Your task to perform on an android device: snooze an email in the gmail app Image 0: 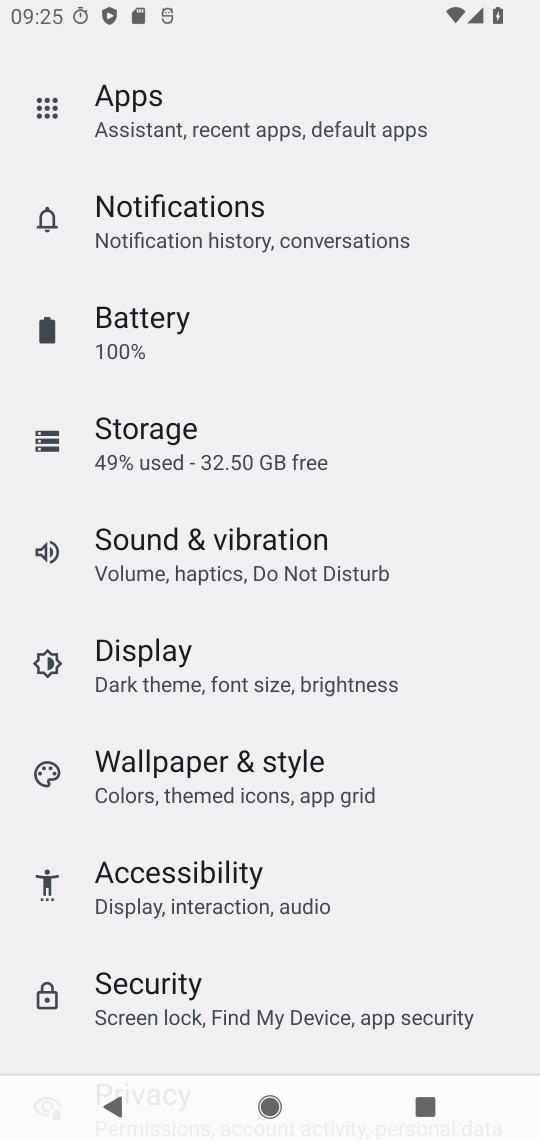
Step 0: press home button
Your task to perform on an android device: snooze an email in the gmail app Image 1: 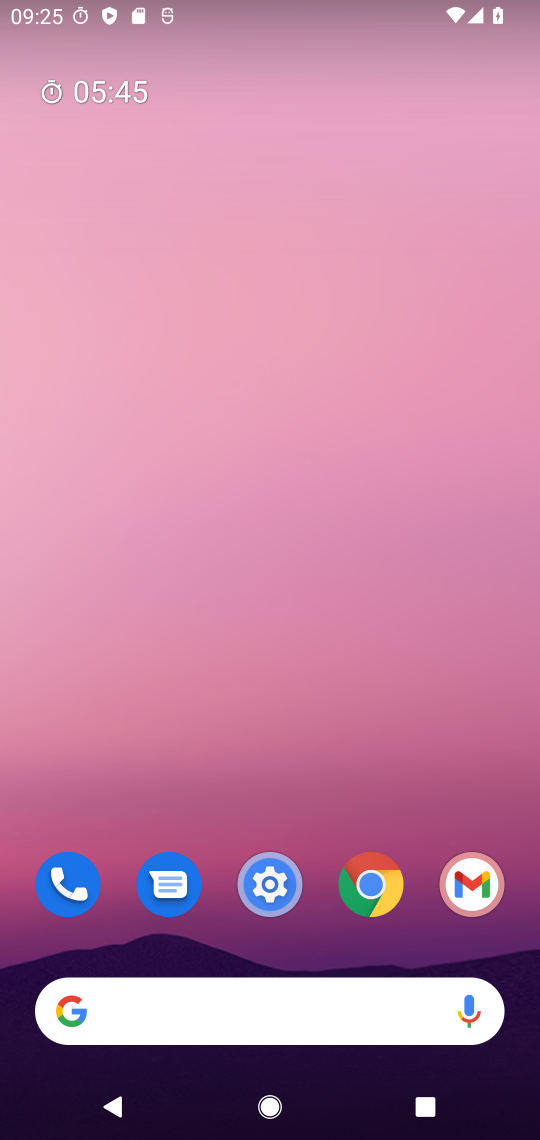
Step 1: click (471, 887)
Your task to perform on an android device: snooze an email in the gmail app Image 2: 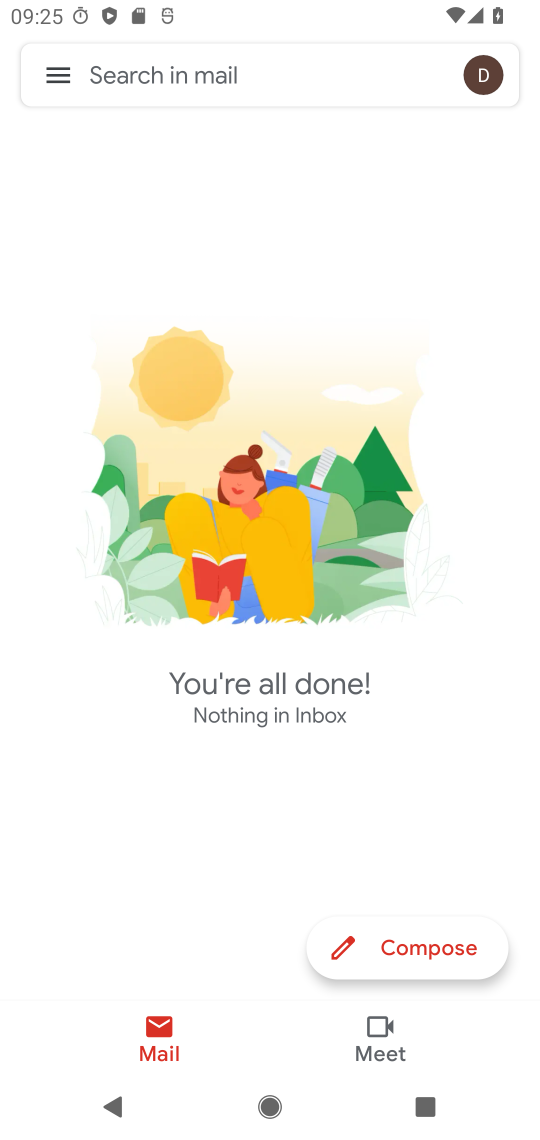
Step 2: click (57, 74)
Your task to perform on an android device: snooze an email in the gmail app Image 3: 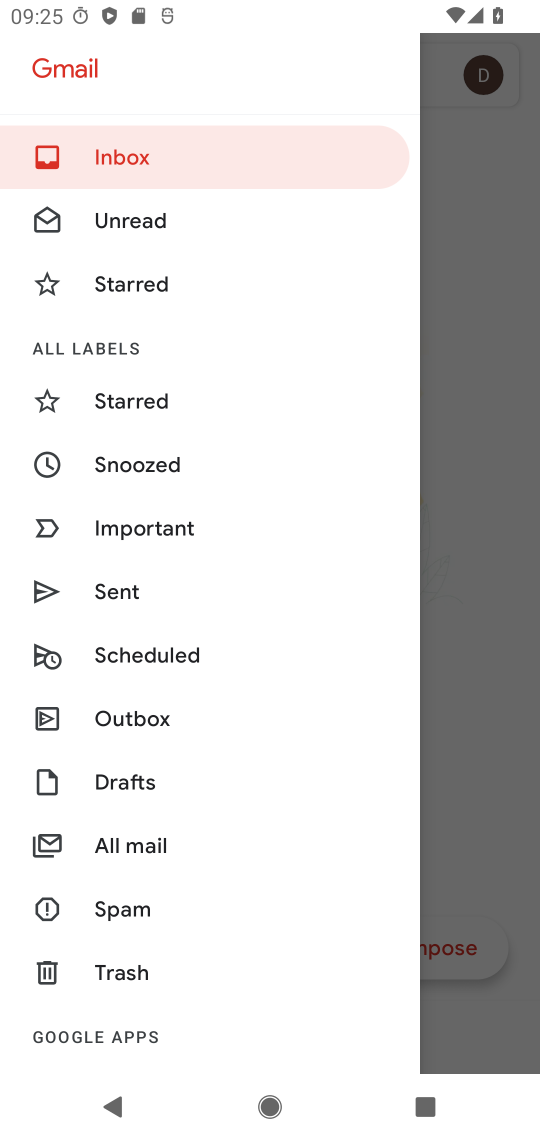
Step 3: click (193, 833)
Your task to perform on an android device: snooze an email in the gmail app Image 4: 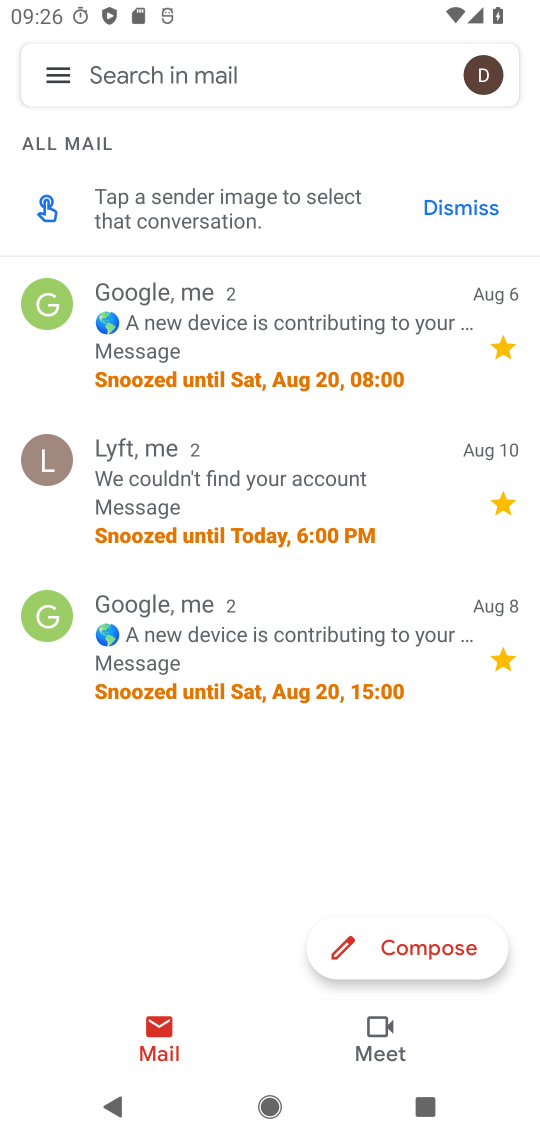
Step 4: click (233, 339)
Your task to perform on an android device: snooze an email in the gmail app Image 5: 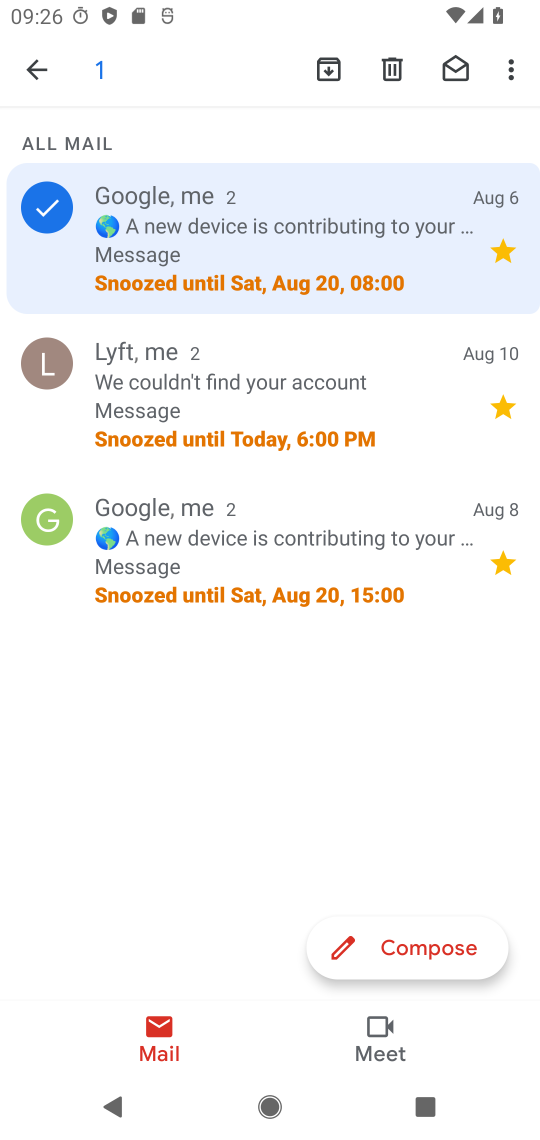
Step 5: click (513, 73)
Your task to perform on an android device: snooze an email in the gmail app Image 6: 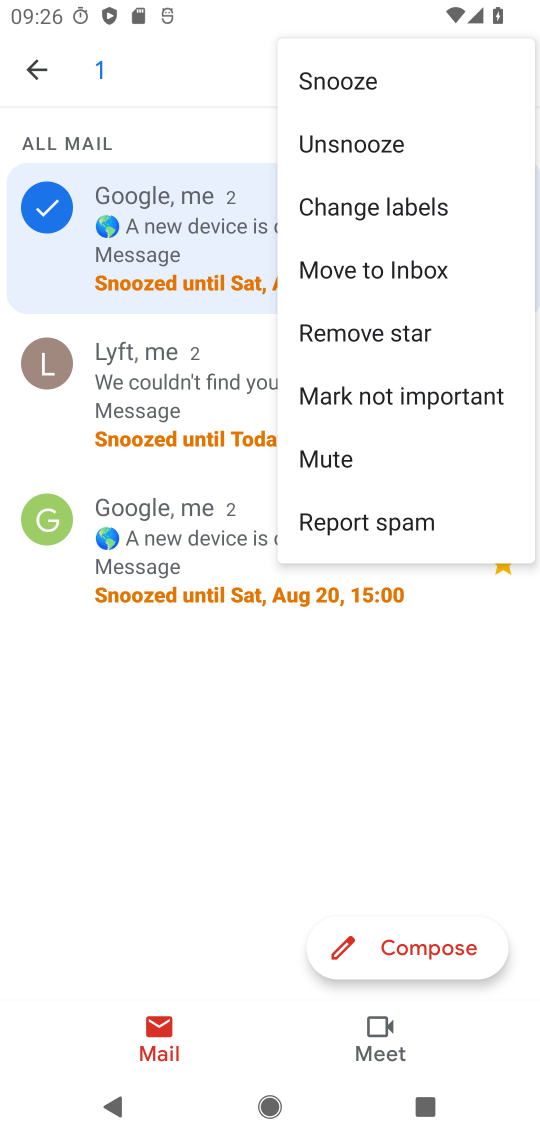
Step 6: click (356, 77)
Your task to perform on an android device: snooze an email in the gmail app Image 7: 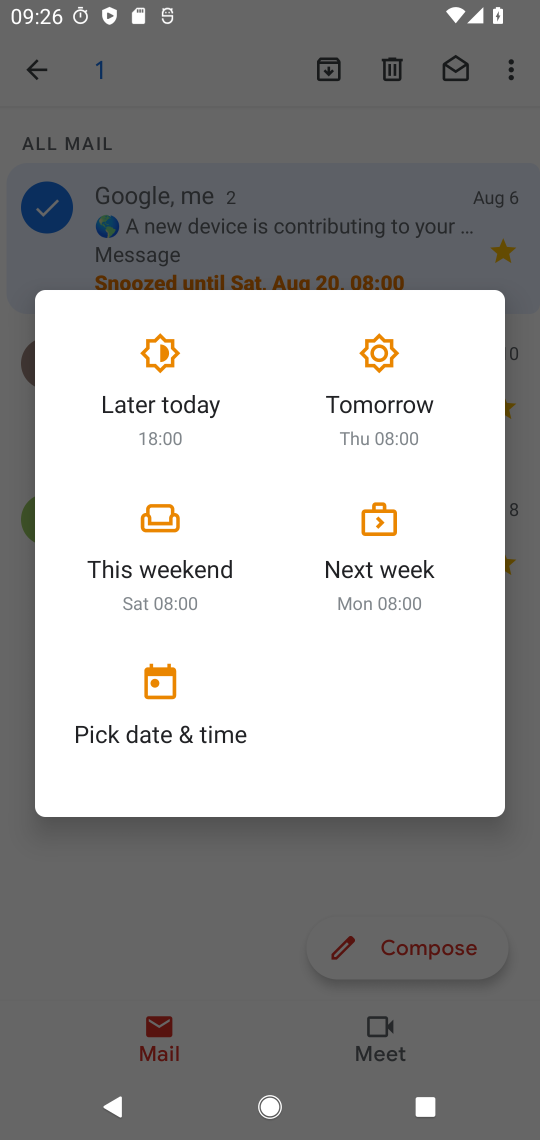
Step 7: click (162, 423)
Your task to perform on an android device: snooze an email in the gmail app Image 8: 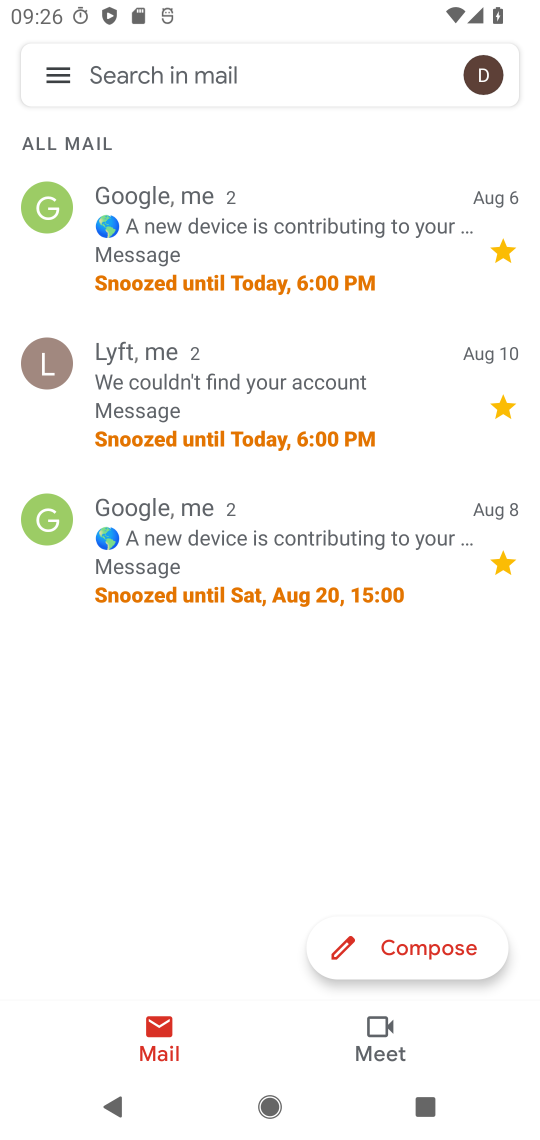
Step 8: task complete